Your task to perform on an android device: Open eBay Image 0: 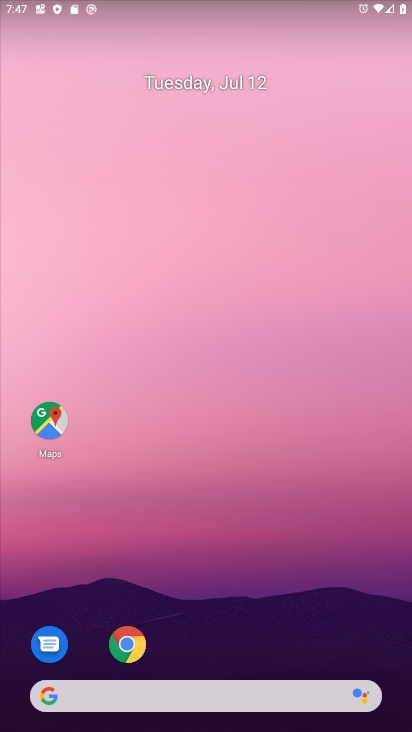
Step 0: click (134, 642)
Your task to perform on an android device: Open eBay Image 1: 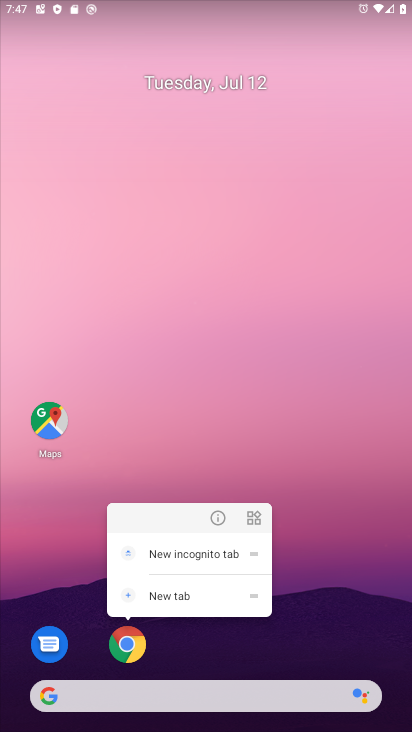
Step 1: click (134, 642)
Your task to perform on an android device: Open eBay Image 2: 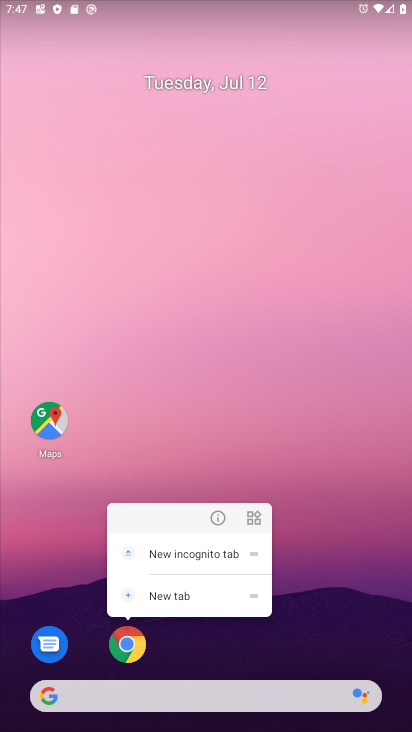
Step 2: click (130, 647)
Your task to perform on an android device: Open eBay Image 3: 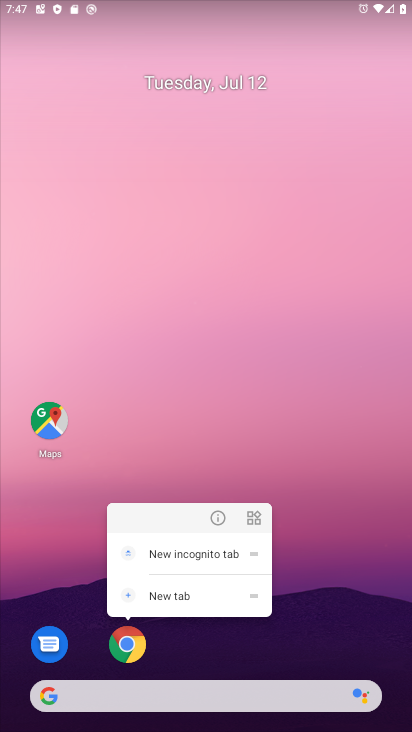
Step 3: click (129, 647)
Your task to perform on an android device: Open eBay Image 4: 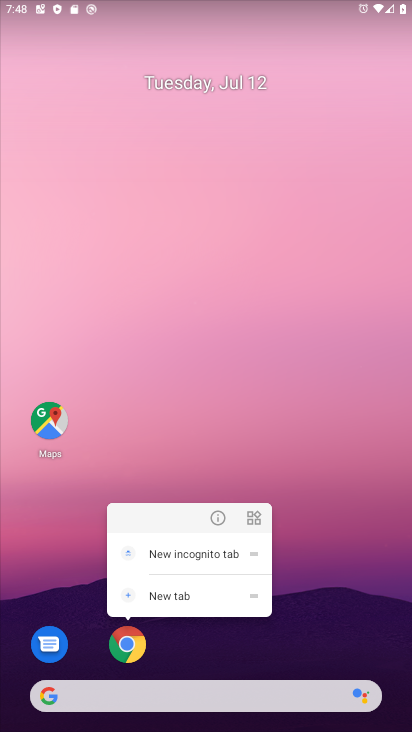
Step 4: click (129, 659)
Your task to perform on an android device: Open eBay Image 5: 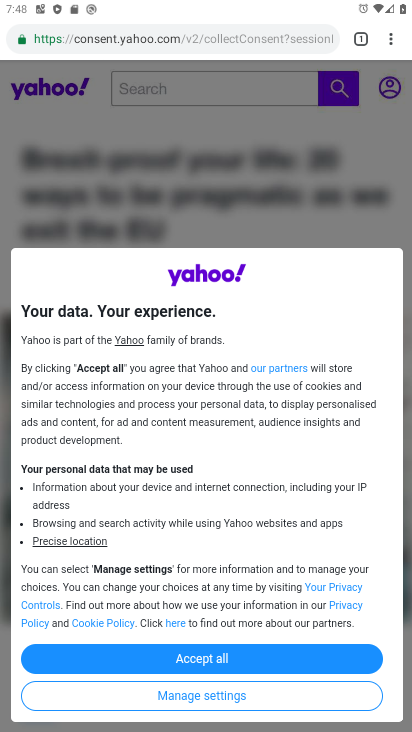
Step 5: click (361, 41)
Your task to perform on an android device: Open eBay Image 6: 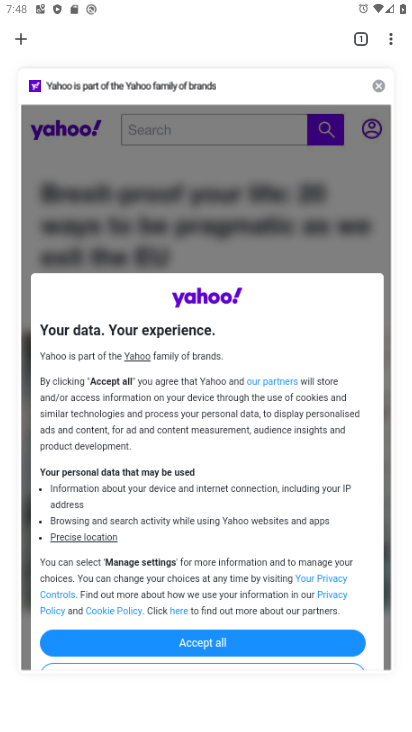
Step 6: click (378, 82)
Your task to perform on an android device: Open eBay Image 7: 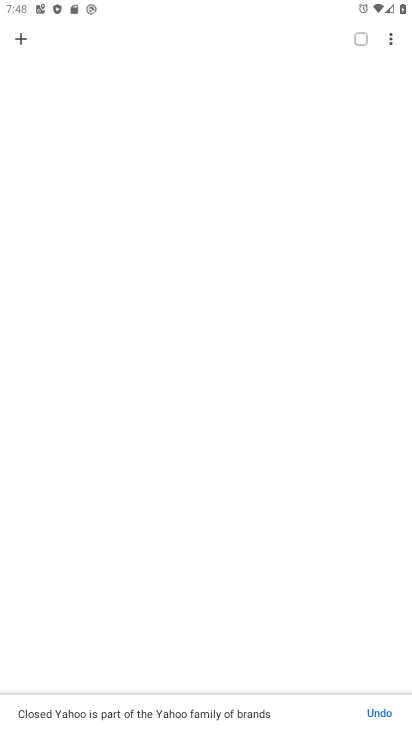
Step 7: click (22, 42)
Your task to perform on an android device: Open eBay Image 8: 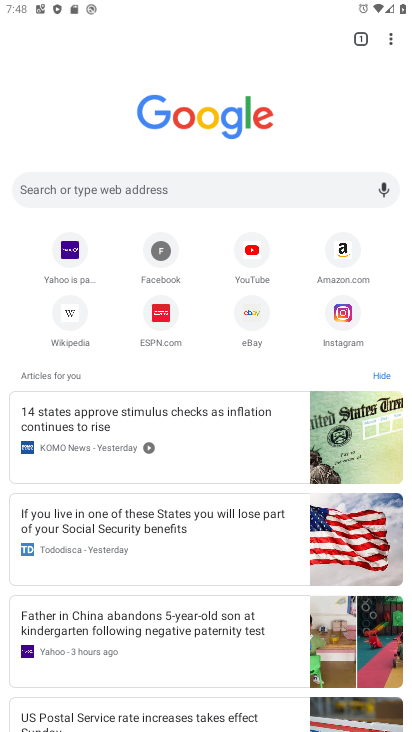
Step 8: click (253, 332)
Your task to perform on an android device: Open eBay Image 9: 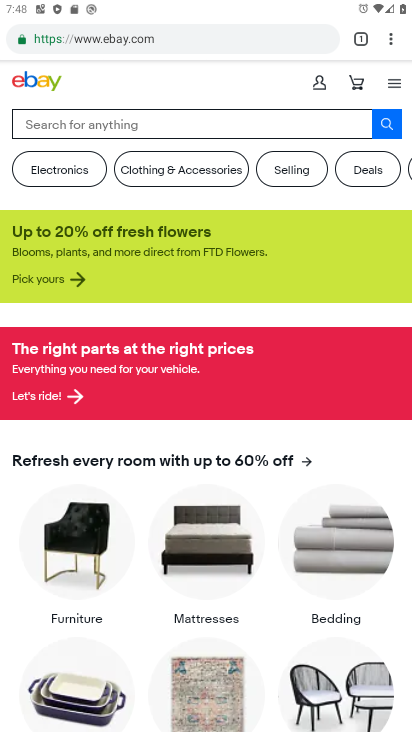
Step 9: task complete